Your task to perform on an android device: Go to calendar. Show me events next week Image 0: 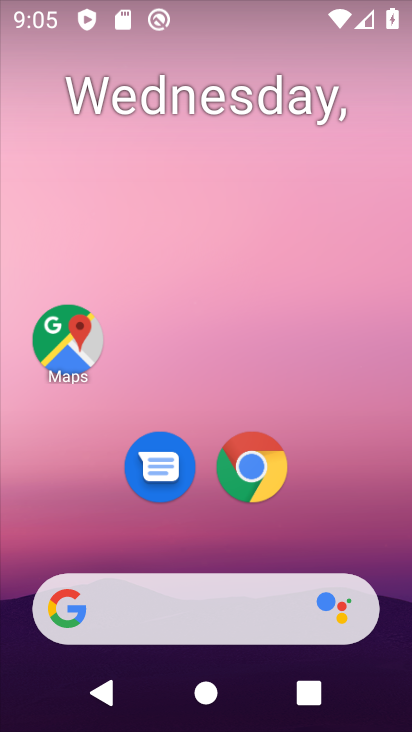
Step 0: drag from (323, 391) to (283, 65)
Your task to perform on an android device: Go to calendar. Show me events next week Image 1: 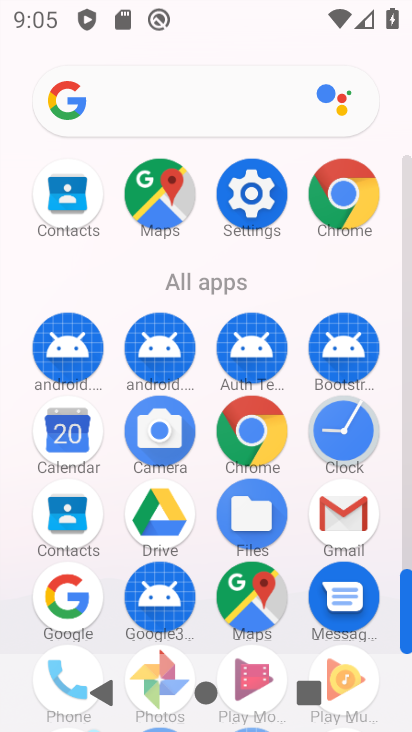
Step 1: click (69, 429)
Your task to perform on an android device: Go to calendar. Show me events next week Image 2: 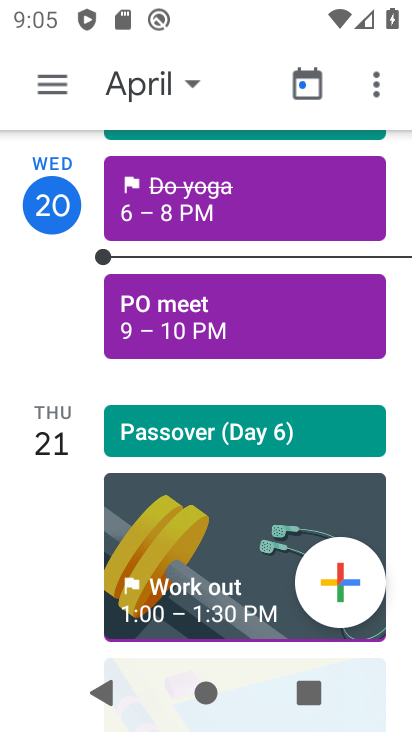
Step 2: click (185, 86)
Your task to perform on an android device: Go to calendar. Show me events next week Image 3: 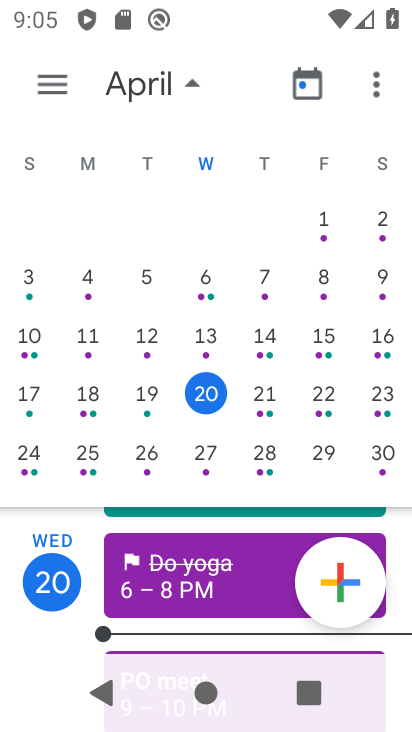
Step 3: click (210, 454)
Your task to perform on an android device: Go to calendar. Show me events next week Image 4: 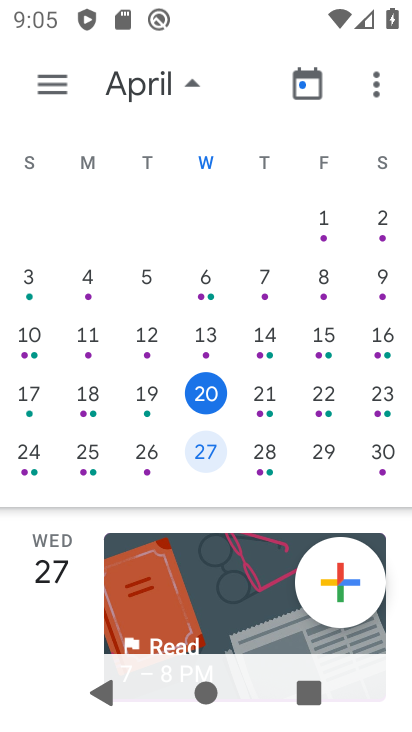
Step 4: task complete